Your task to perform on an android device: turn on sleep mode Image 0: 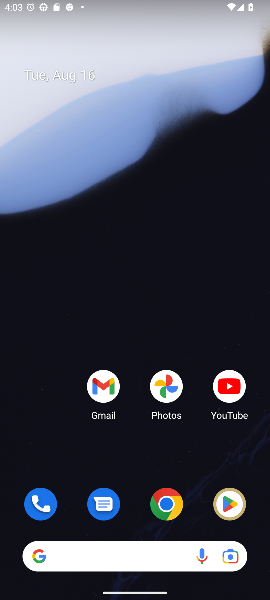
Step 0: drag from (134, 456) to (113, 34)
Your task to perform on an android device: turn on sleep mode Image 1: 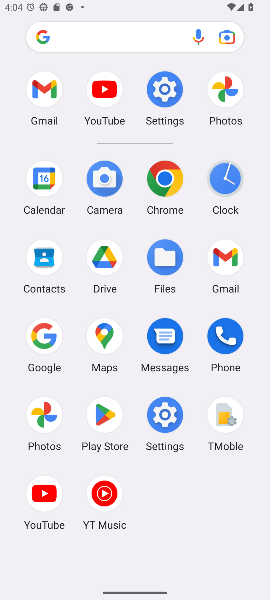
Step 1: click (163, 87)
Your task to perform on an android device: turn on sleep mode Image 2: 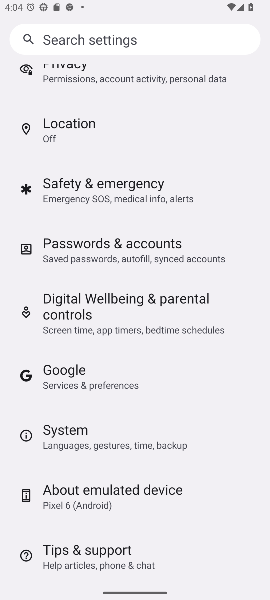
Step 2: drag from (124, 463) to (82, 111)
Your task to perform on an android device: turn on sleep mode Image 3: 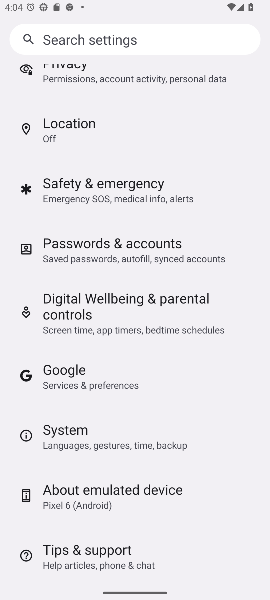
Step 3: drag from (117, 145) to (123, 341)
Your task to perform on an android device: turn on sleep mode Image 4: 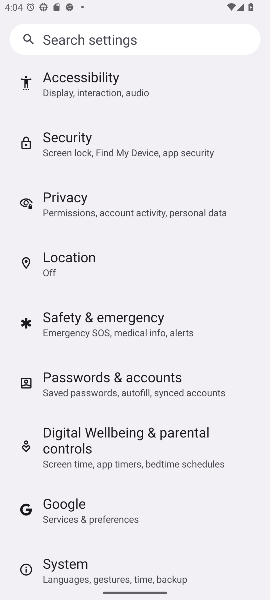
Step 4: drag from (156, 236) to (177, 430)
Your task to perform on an android device: turn on sleep mode Image 5: 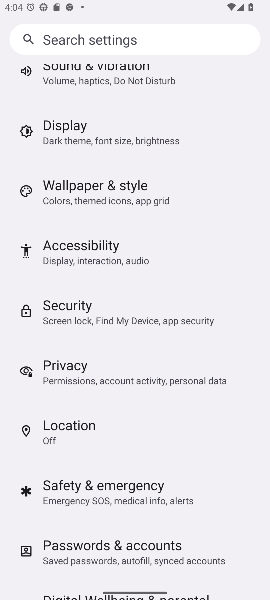
Step 5: click (48, 129)
Your task to perform on an android device: turn on sleep mode Image 6: 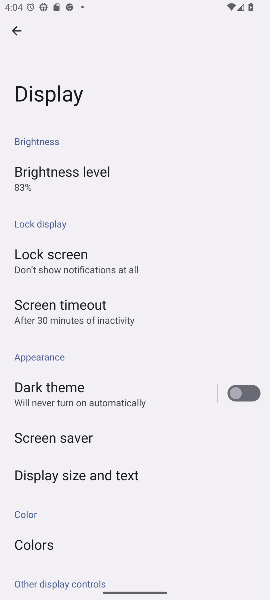
Step 6: task complete